Your task to perform on an android device: allow notifications from all sites in the chrome app Image 0: 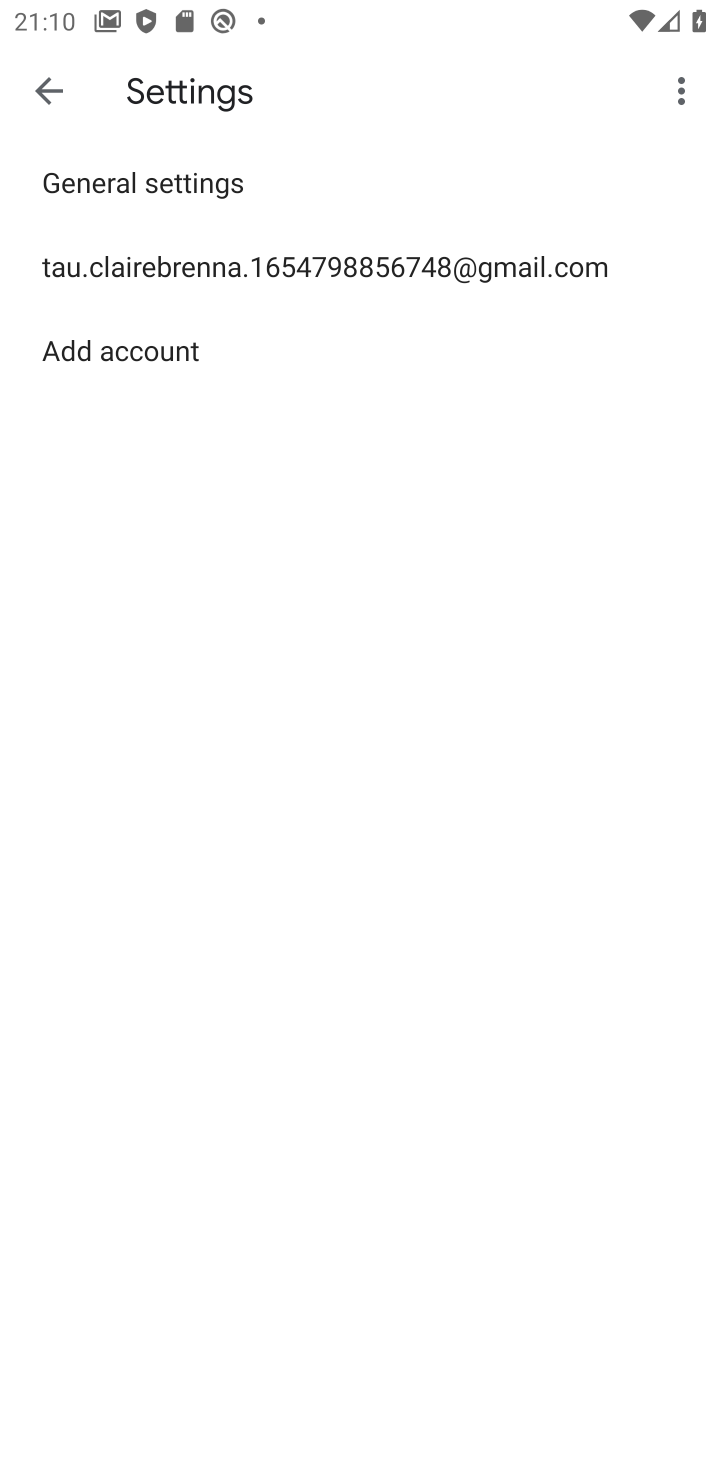
Step 0: press home button
Your task to perform on an android device: allow notifications from all sites in the chrome app Image 1: 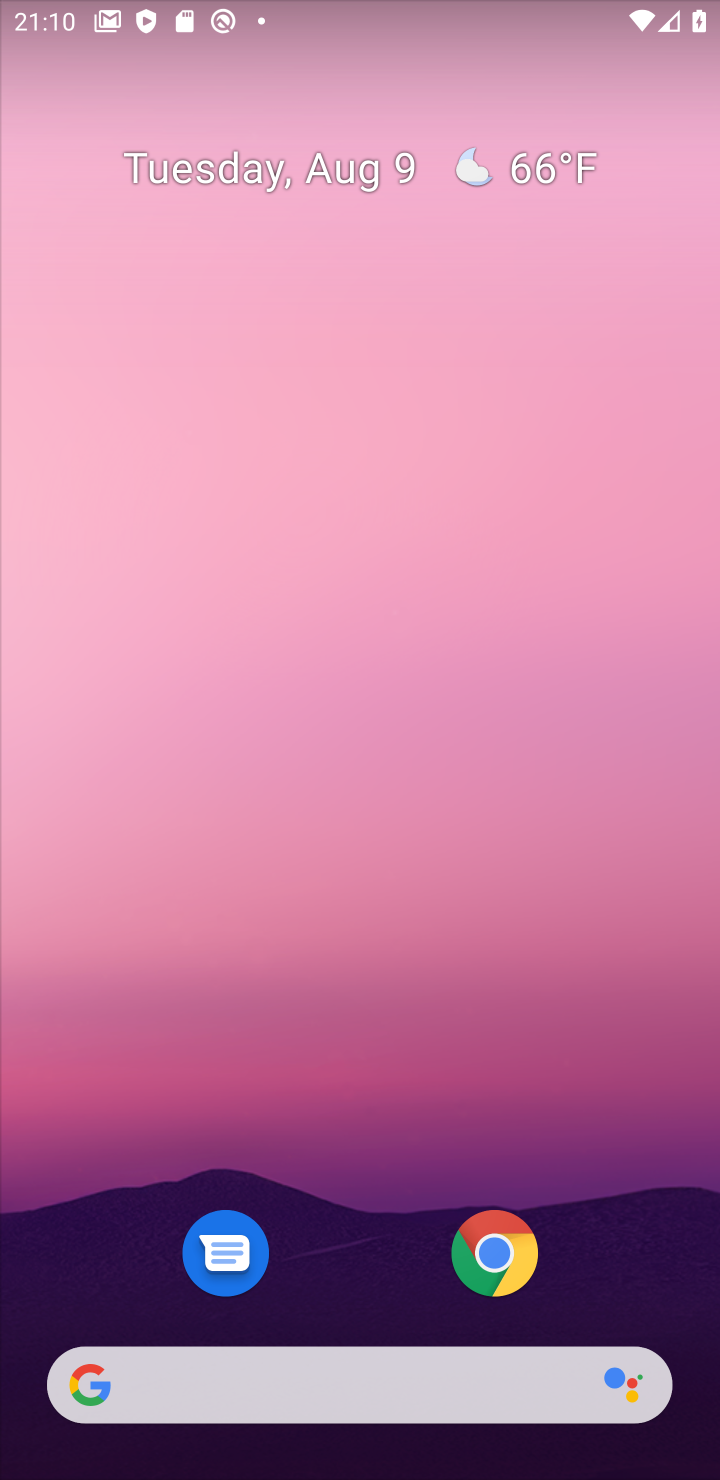
Step 1: drag from (321, 1299) to (506, 204)
Your task to perform on an android device: allow notifications from all sites in the chrome app Image 2: 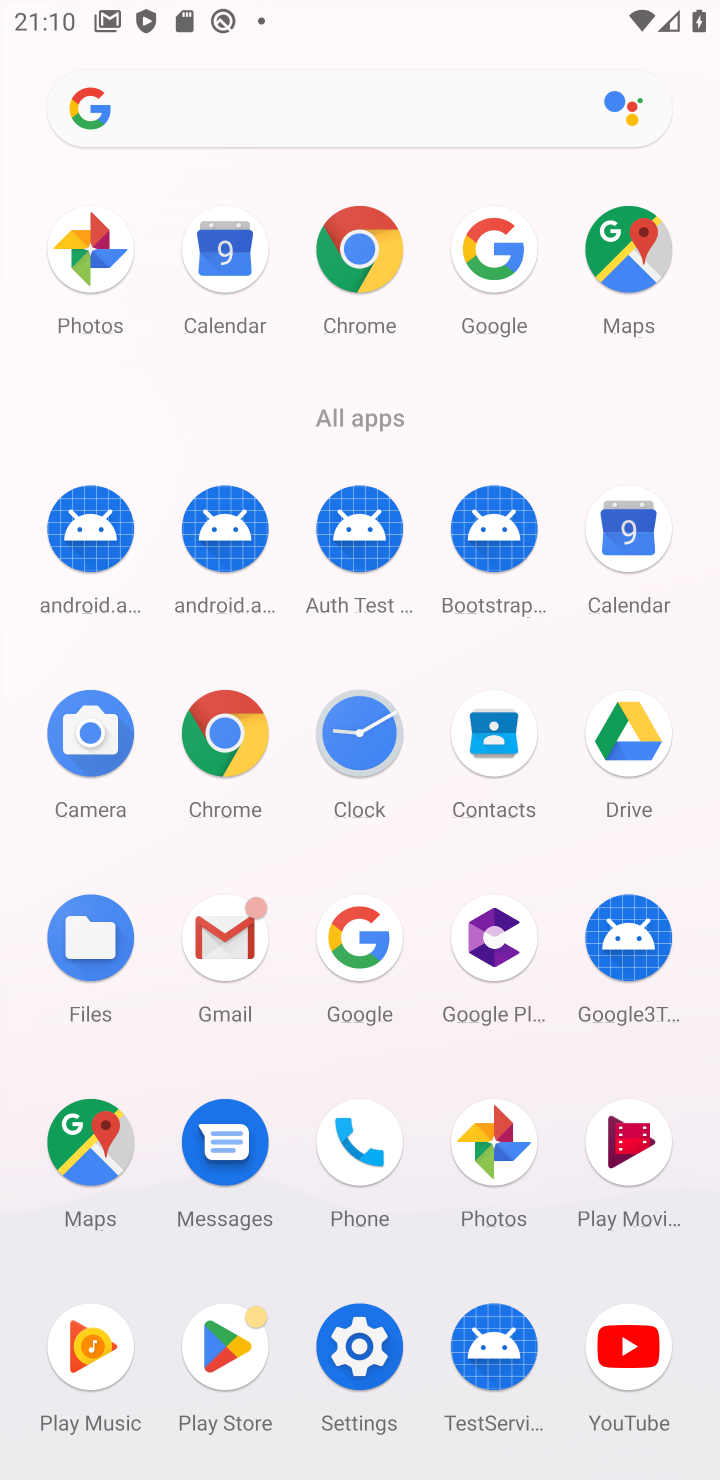
Step 2: click (220, 739)
Your task to perform on an android device: allow notifications from all sites in the chrome app Image 3: 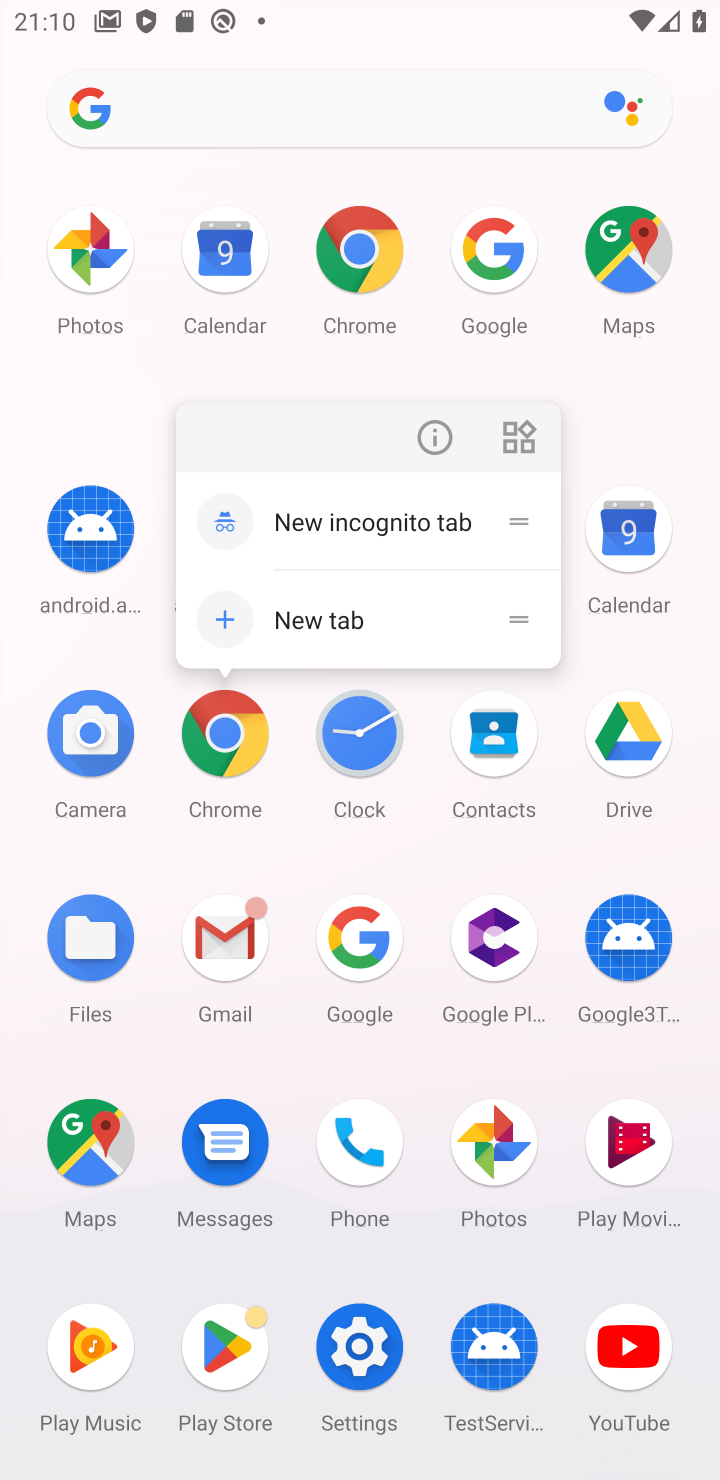
Step 3: click (224, 744)
Your task to perform on an android device: allow notifications from all sites in the chrome app Image 4: 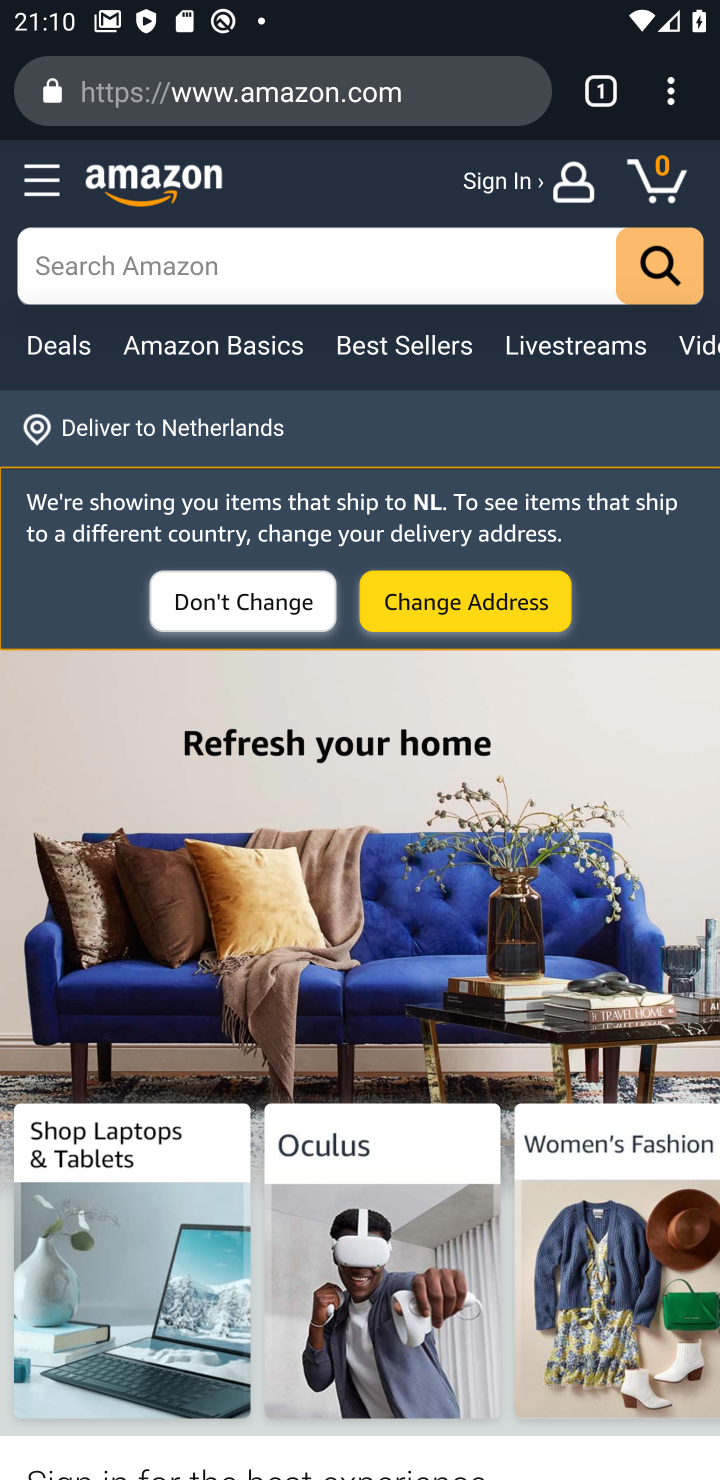
Step 4: drag from (689, 92) to (309, 1095)
Your task to perform on an android device: allow notifications from all sites in the chrome app Image 5: 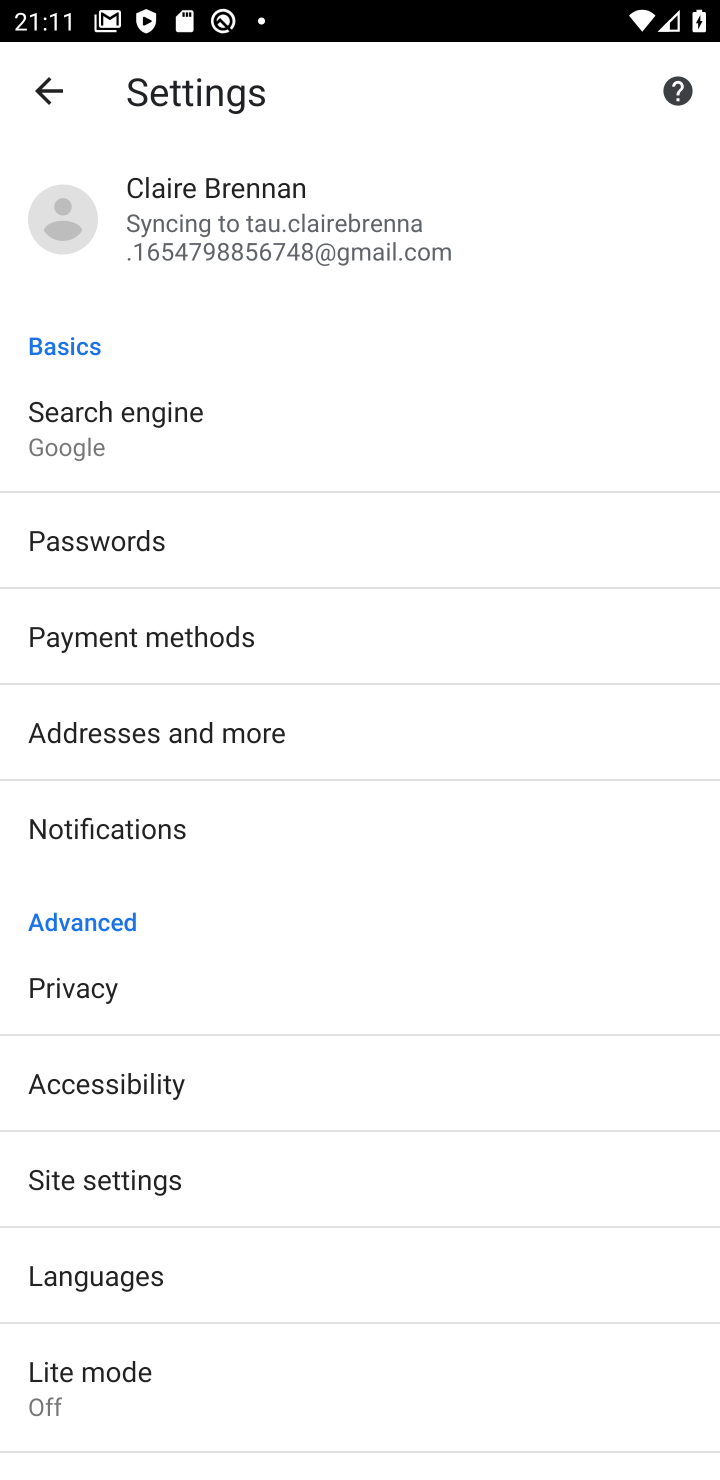
Step 5: click (124, 825)
Your task to perform on an android device: allow notifications from all sites in the chrome app Image 6: 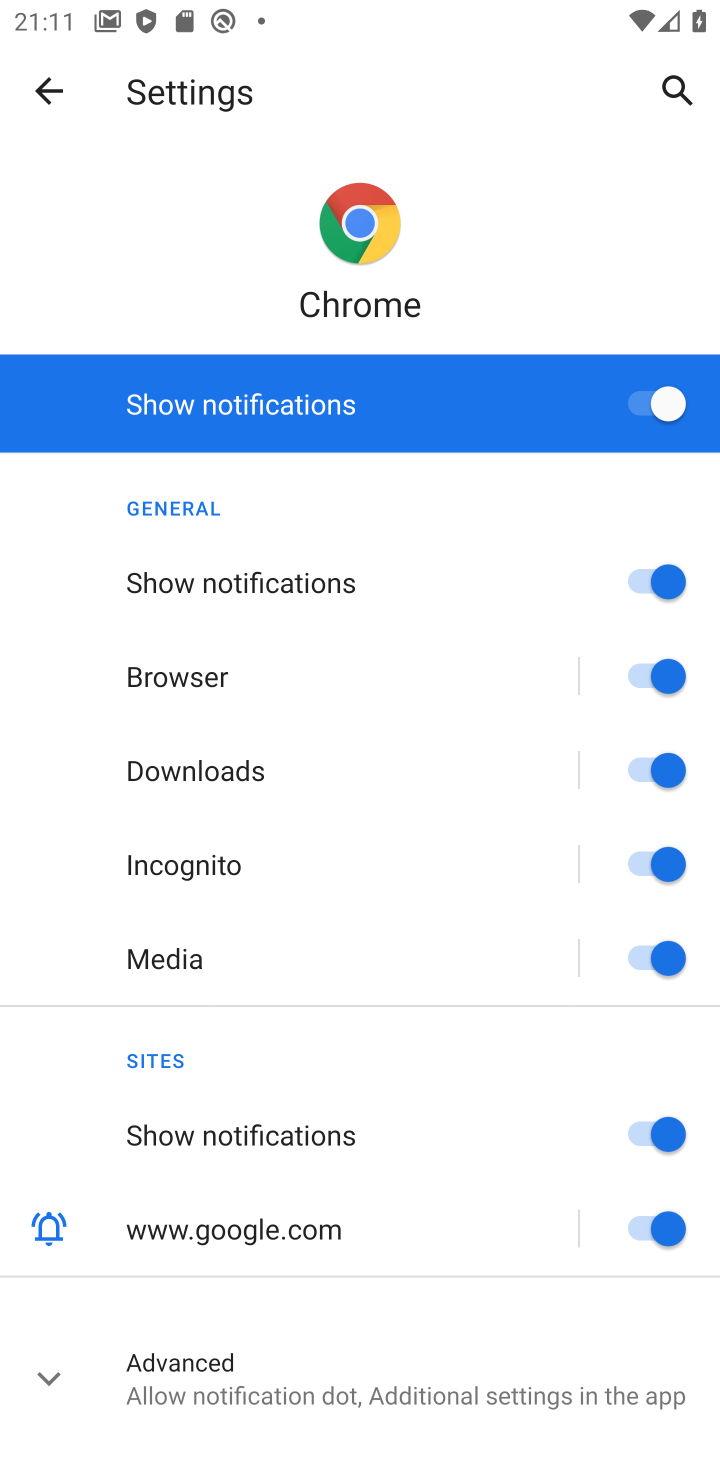
Step 6: task complete